Your task to perform on an android device: find snoozed emails in the gmail app Image 0: 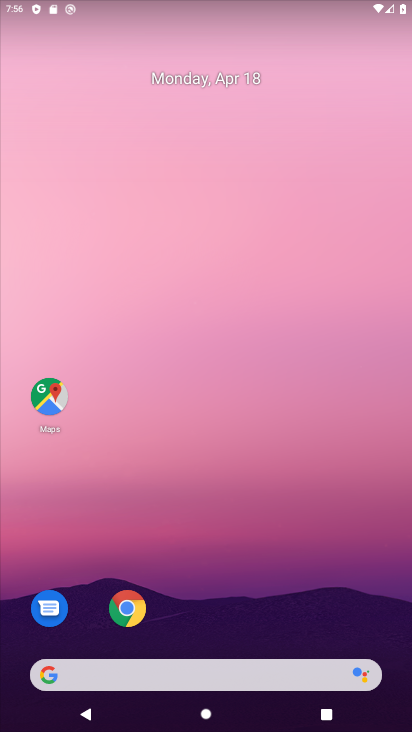
Step 0: drag from (230, 620) to (263, 139)
Your task to perform on an android device: find snoozed emails in the gmail app Image 1: 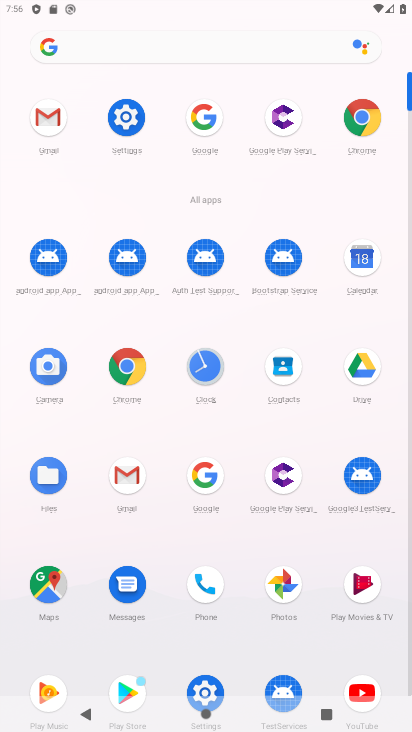
Step 1: click (45, 112)
Your task to perform on an android device: find snoozed emails in the gmail app Image 2: 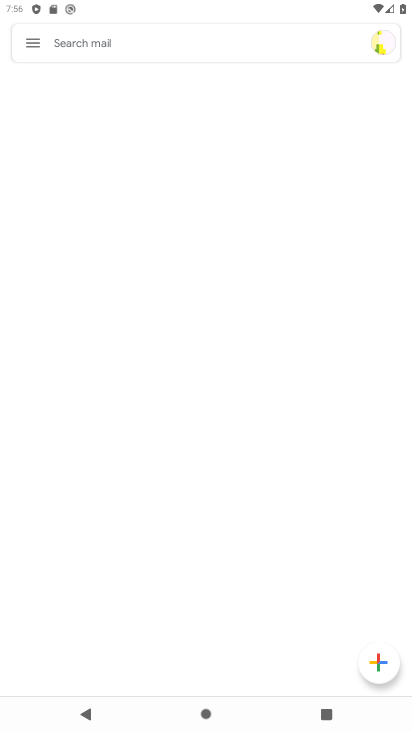
Step 2: click (29, 43)
Your task to perform on an android device: find snoozed emails in the gmail app Image 3: 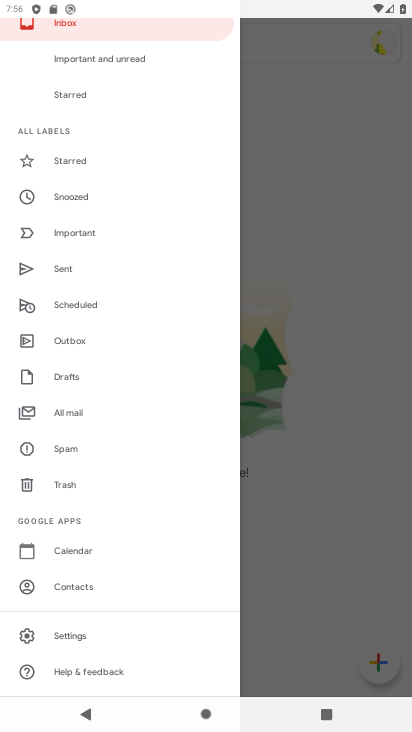
Step 3: click (84, 193)
Your task to perform on an android device: find snoozed emails in the gmail app Image 4: 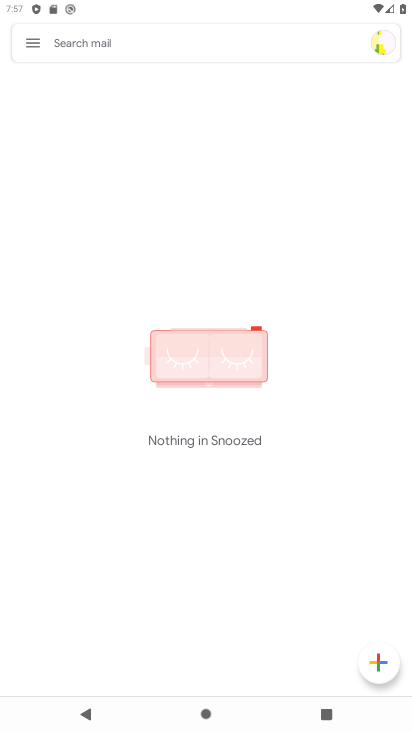
Step 4: task complete